Your task to perform on an android device: Do I have any events tomorrow? Image 0: 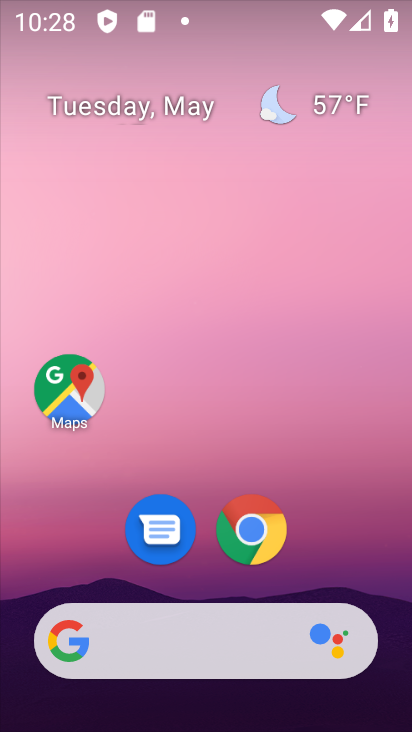
Step 0: click (126, 114)
Your task to perform on an android device: Do I have any events tomorrow? Image 1: 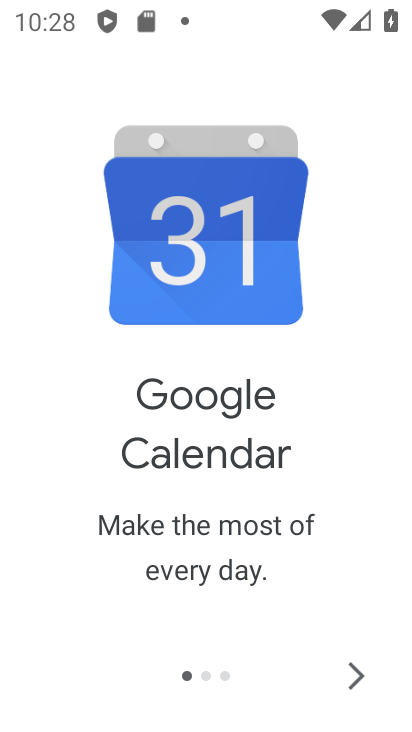
Step 1: click (346, 674)
Your task to perform on an android device: Do I have any events tomorrow? Image 2: 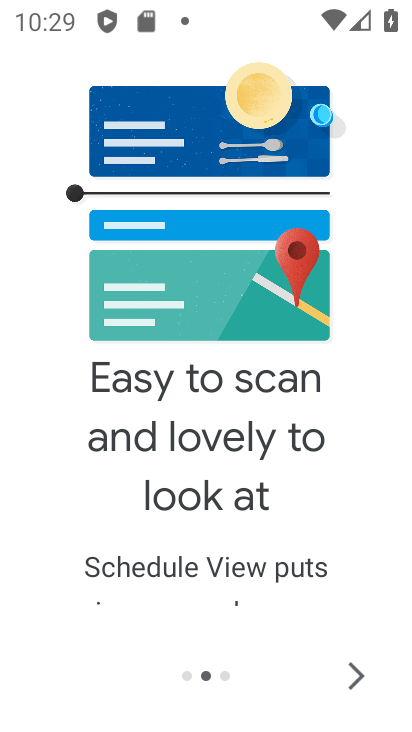
Step 2: click (342, 692)
Your task to perform on an android device: Do I have any events tomorrow? Image 3: 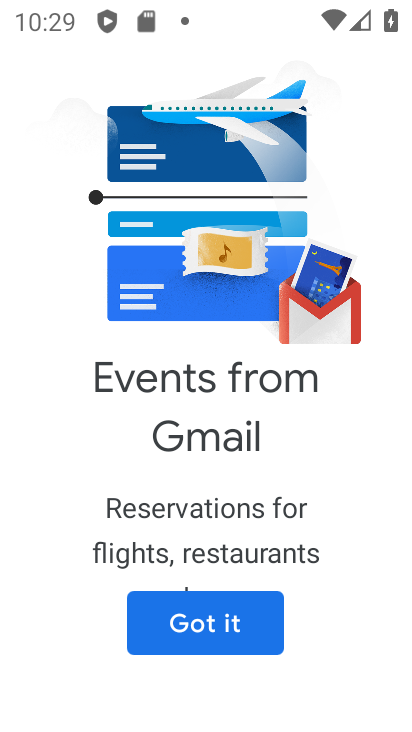
Step 3: click (195, 605)
Your task to perform on an android device: Do I have any events tomorrow? Image 4: 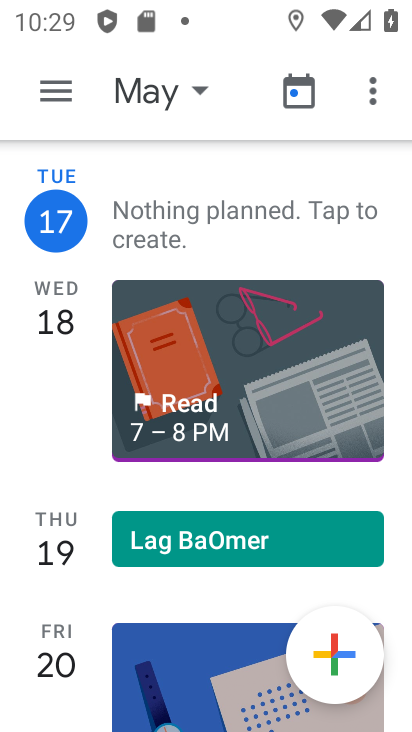
Step 4: click (158, 116)
Your task to perform on an android device: Do I have any events tomorrow? Image 5: 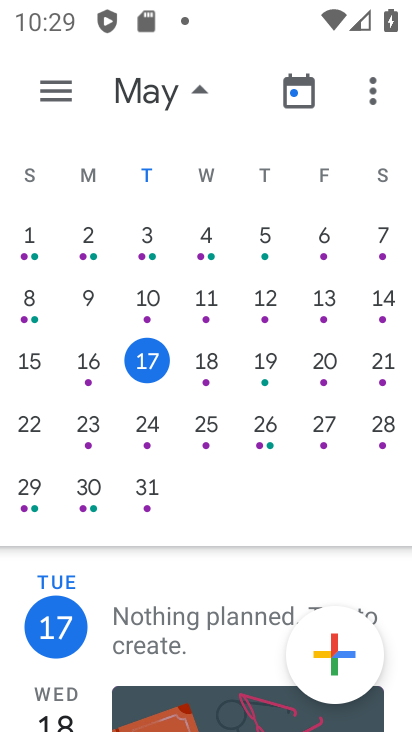
Step 5: click (204, 368)
Your task to perform on an android device: Do I have any events tomorrow? Image 6: 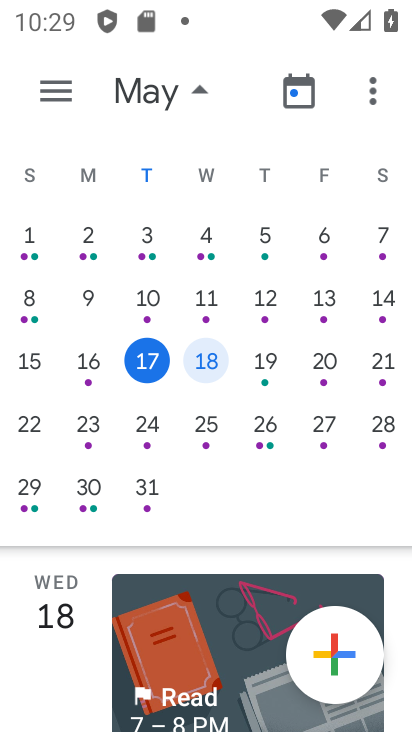
Step 6: task complete